Your task to perform on an android device: open app "Lyft - Rideshare, Bikes, Scooters & Transit" (install if not already installed) Image 0: 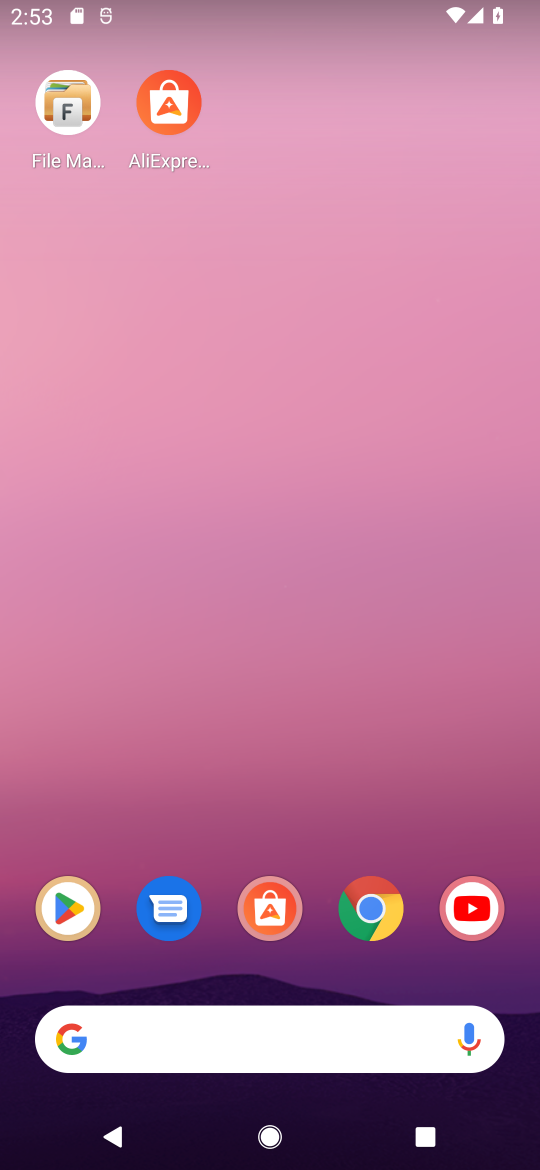
Step 0: click (65, 908)
Your task to perform on an android device: open app "Lyft - Rideshare, Bikes, Scooters & Transit" (install if not already installed) Image 1: 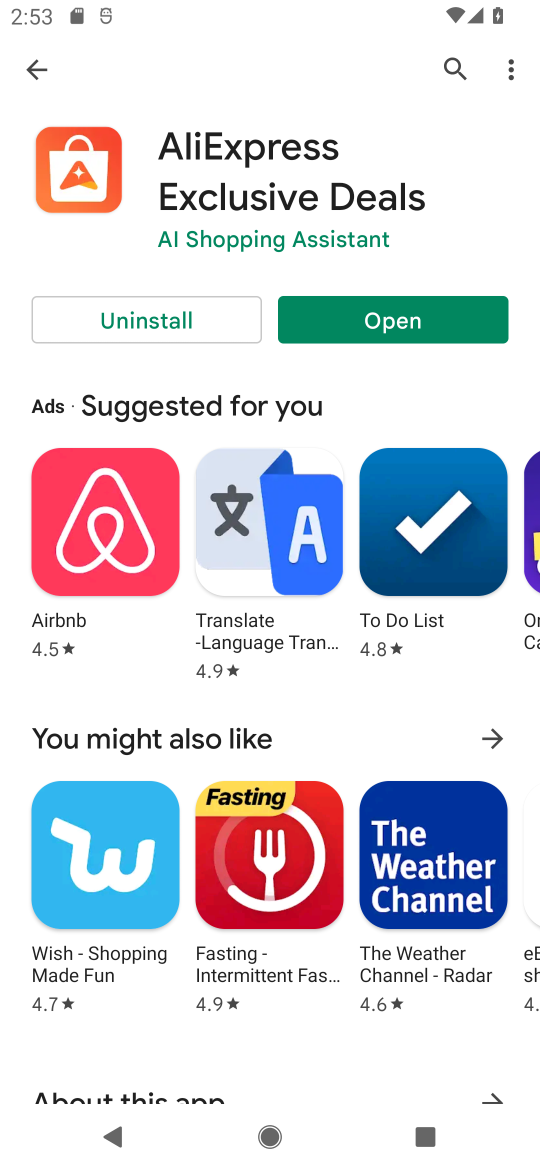
Step 1: click (448, 75)
Your task to perform on an android device: open app "Lyft - Rideshare, Bikes, Scooters & Transit" (install if not already installed) Image 2: 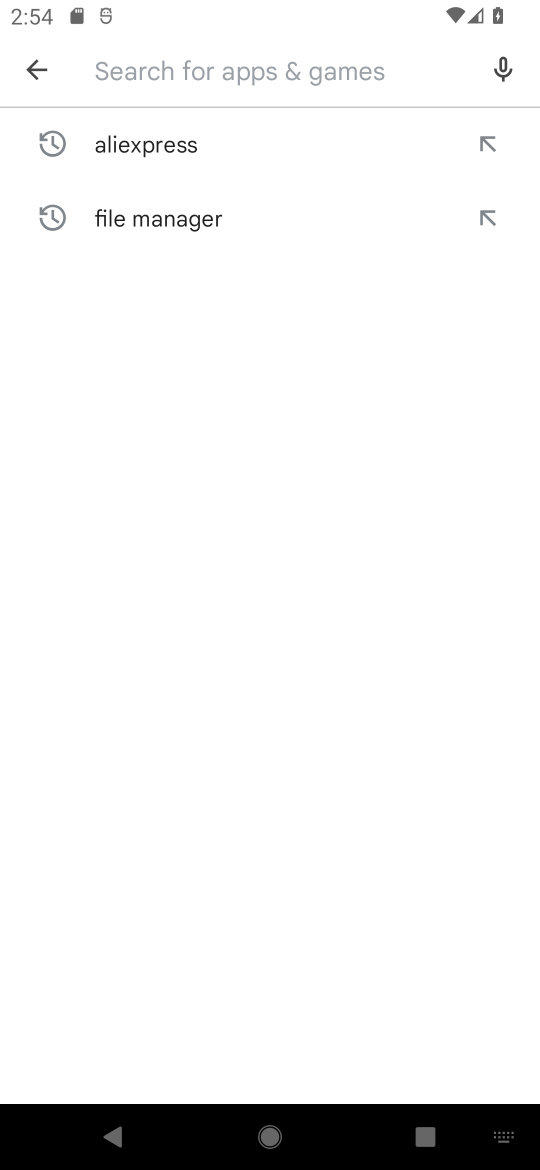
Step 2: type "Lyft - Rideshare, Bikes, Scooters & Transit"
Your task to perform on an android device: open app "Lyft - Rideshare, Bikes, Scooters & Transit" (install if not already installed) Image 3: 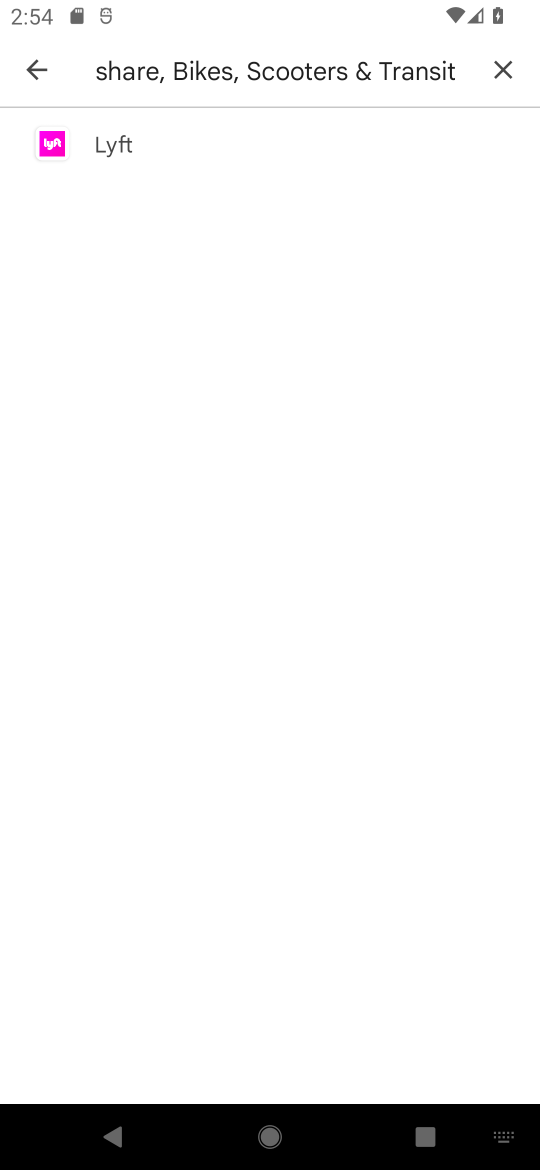
Step 3: click (41, 135)
Your task to perform on an android device: open app "Lyft - Rideshare, Bikes, Scooters & Transit" (install if not already installed) Image 4: 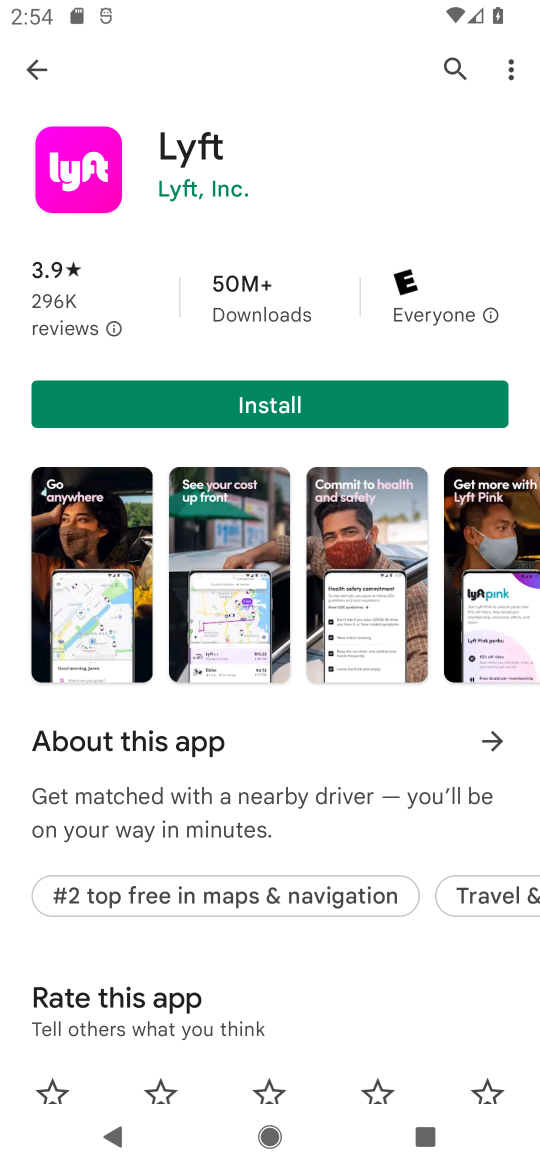
Step 4: click (139, 375)
Your task to perform on an android device: open app "Lyft - Rideshare, Bikes, Scooters & Transit" (install if not already installed) Image 5: 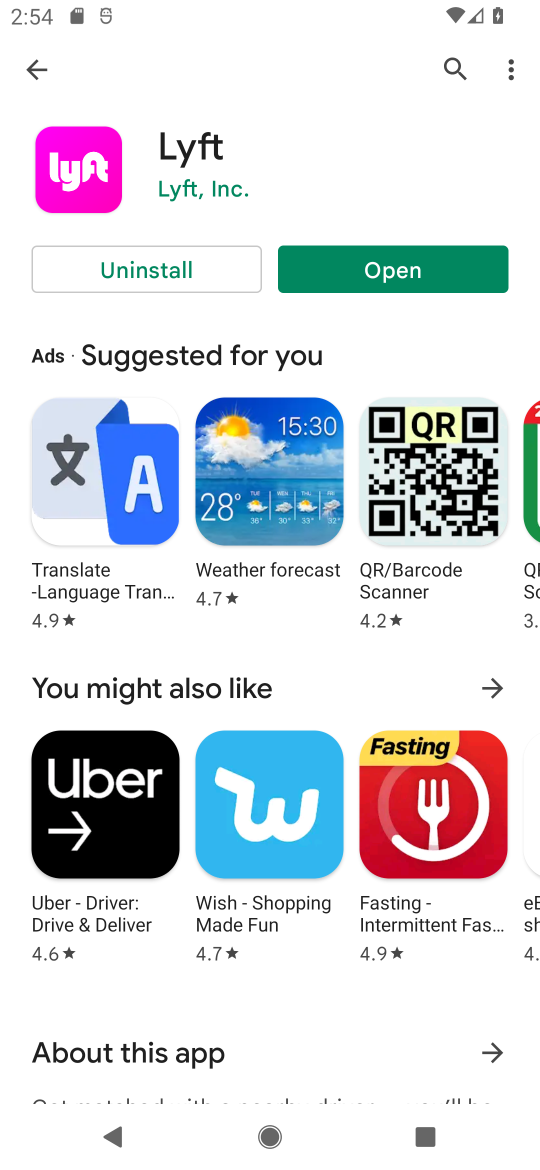
Step 5: click (354, 292)
Your task to perform on an android device: open app "Lyft - Rideshare, Bikes, Scooters & Transit" (install if not already installed) Image 6: 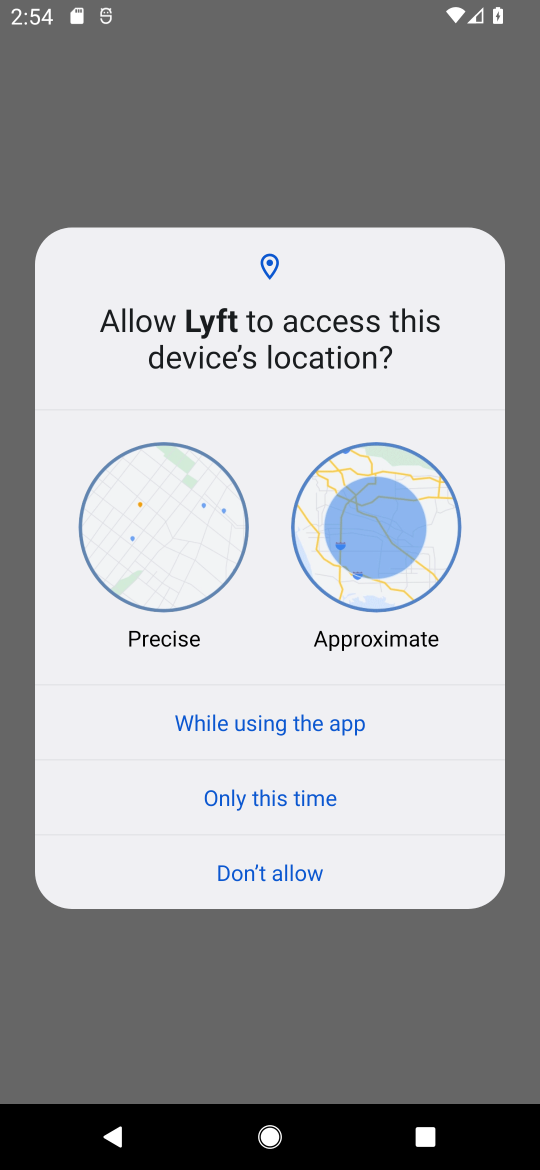
Step 6: task complete